Your task to perform on an android device: What's the weather? Image 0: 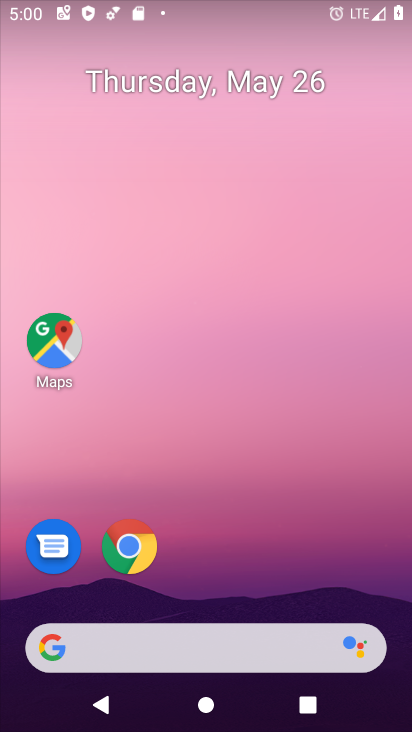
Step 0: click (146, 646)
Your task to perform on an android device: What's the weather? Image 1: 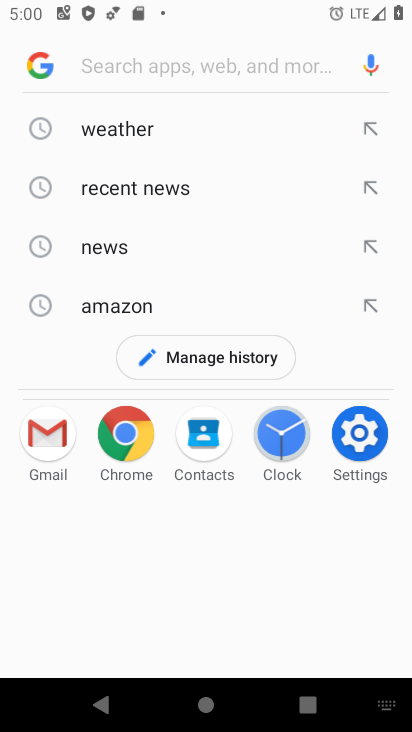
Step 1: click (126, 122)
Your task to perform on an android device: What's the weather? Image 2: 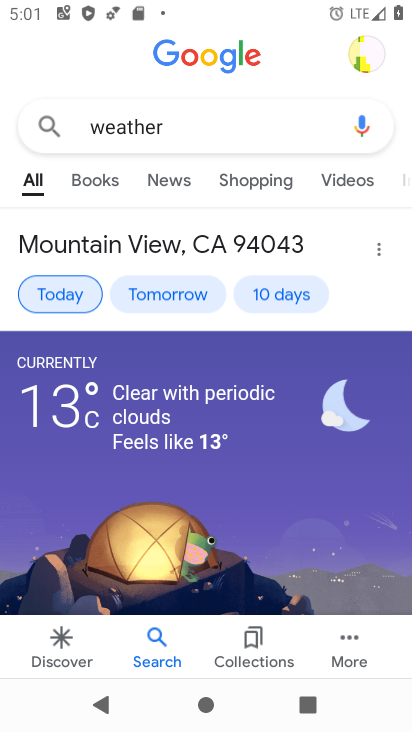
Step 2: task complete